Your task to perform on an android device: Add "dell alienware" to the cart on target.com Image 0: 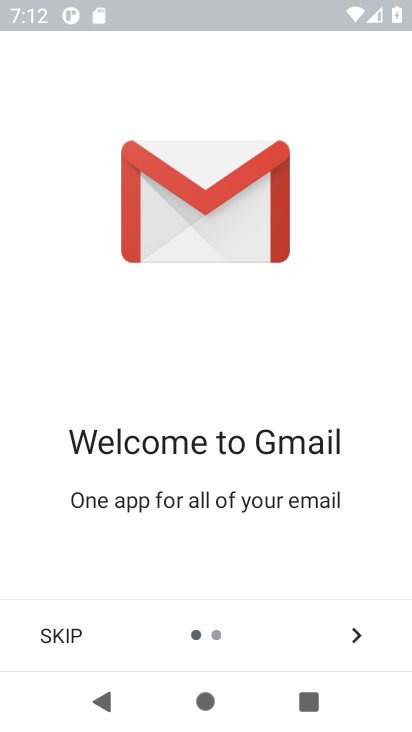
Step 0: press home button
Your task to perform on an android device: Add "dell alienware" to the cart on target.com Image 1: 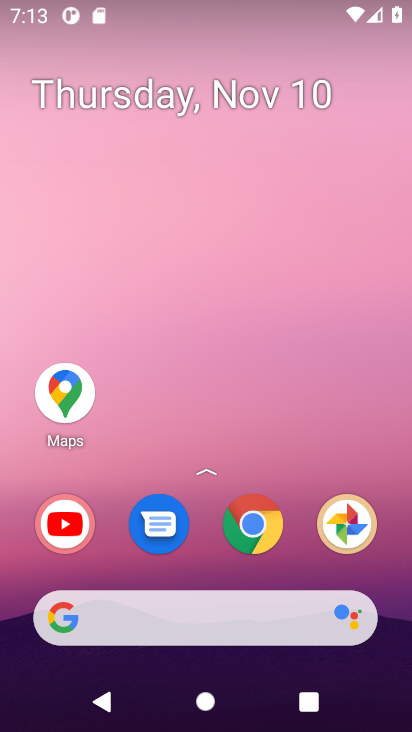
Step 1: click (248, 525)
Your task to perform on an android device: Add "dell alienware" to the cart on target.com Image 2: 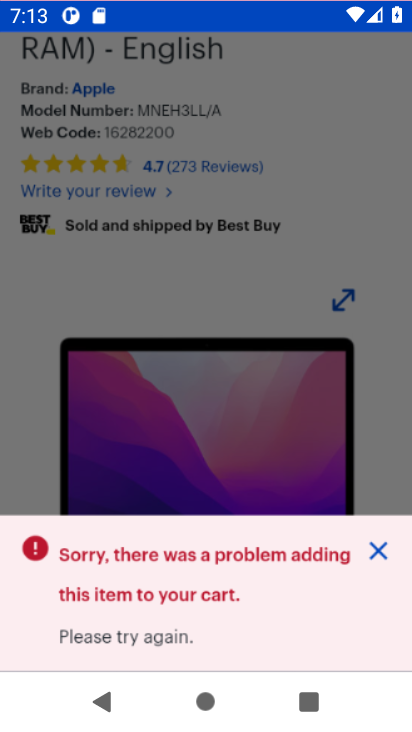
Step 2: click (253, 531)
Your task to perform on an android device: Add "dell alienware" to the cart on target.com Image 3: 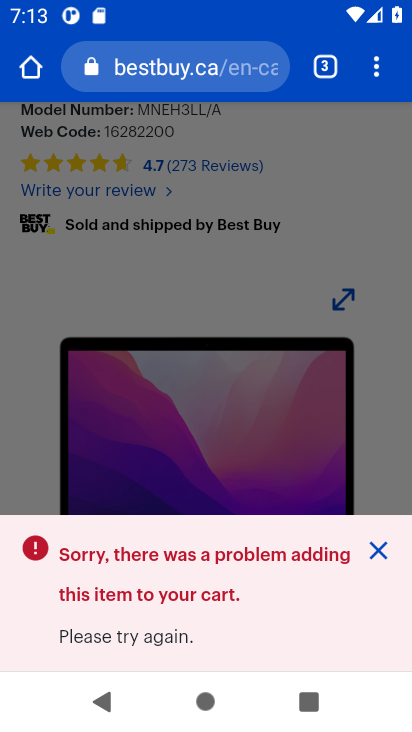
Step 3: click (335, 61)
Your task to perform on an android device: Add "dell alienware" to the cart on target.com Image 4: 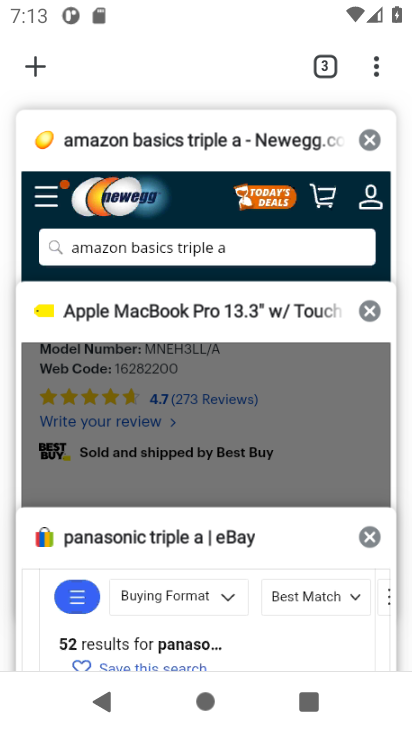
Step 4: click (365, 309)
Your task to perform on an android device: Add "dell alienware" to the cart on target.com Image 5: 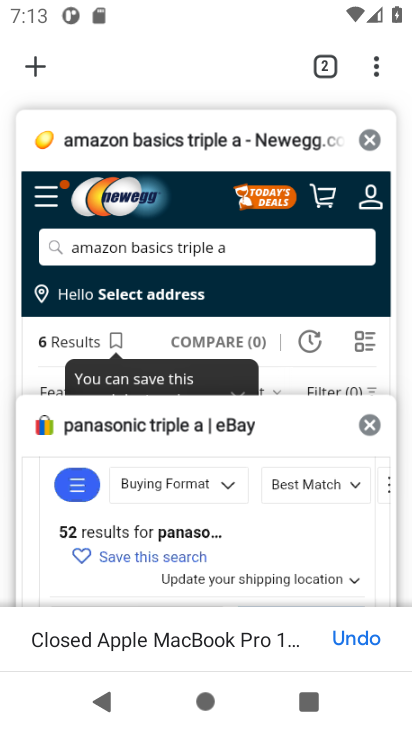
Step 5: click (373, 419)
Your task to perform on an android device: Add "dell alienware" to the cart on target.com Image 6: 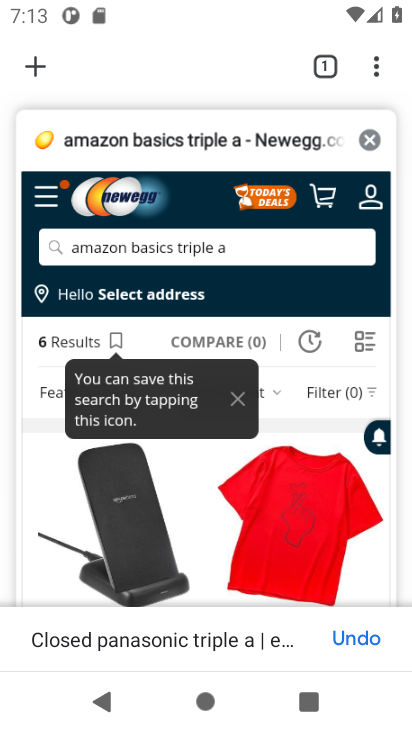
Step 6: click (368, 137)
Your task to perform on an android device: Add "dell alienware" to the cart on target.com Image 7: 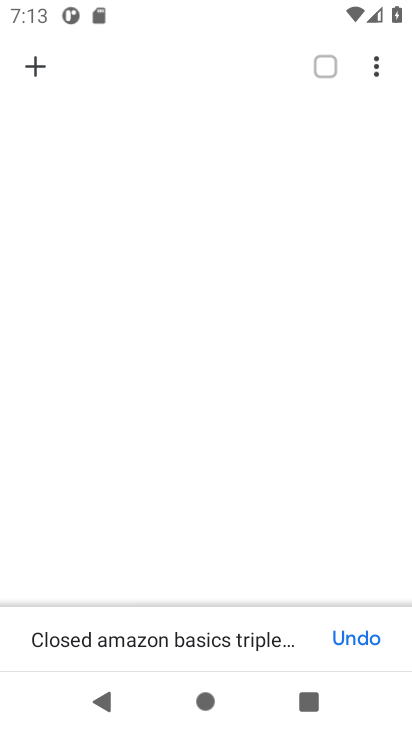
Step 7: click (32, 58)
Your task to perform on an android device: Add "dell alienware" to the cart on target.com Image 8: 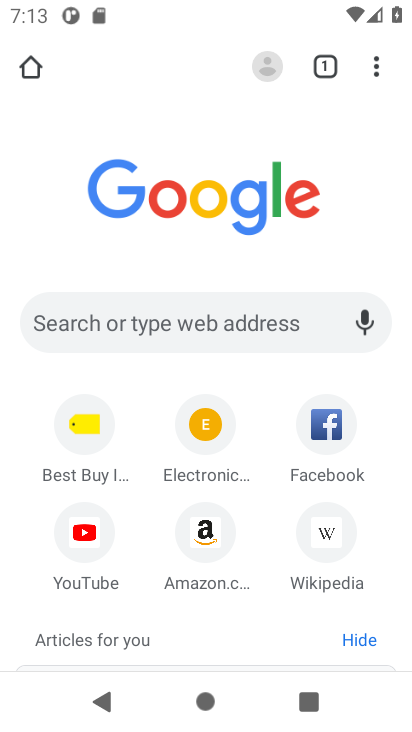
Step 8: click (127, 325)
Your task to perform on an android device: Add "dell alienware" to the cart on target.com Image 9: 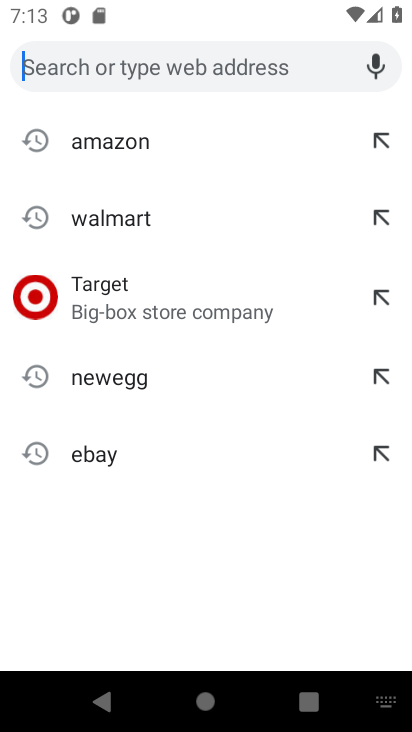
Step 9: click (96, 295)
Your task to perform on an android device: Add "dell alienware" to the cart on target.com Image 10: 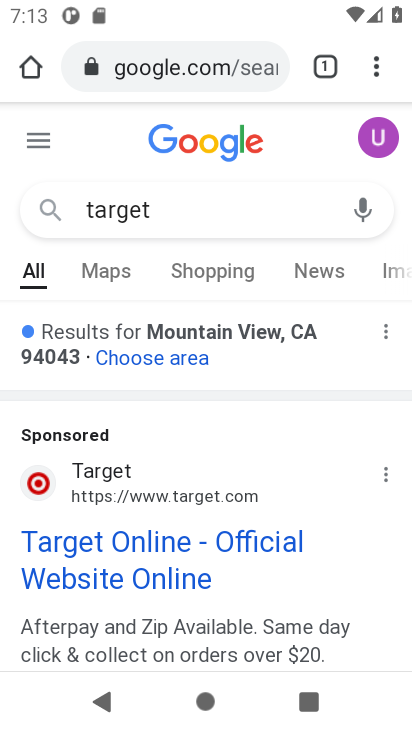
Step 10: drag from (172, 498) to (254, 199)
Your task to perform on an android device: Add "dell alienware" to the cart on target.com Image 11: 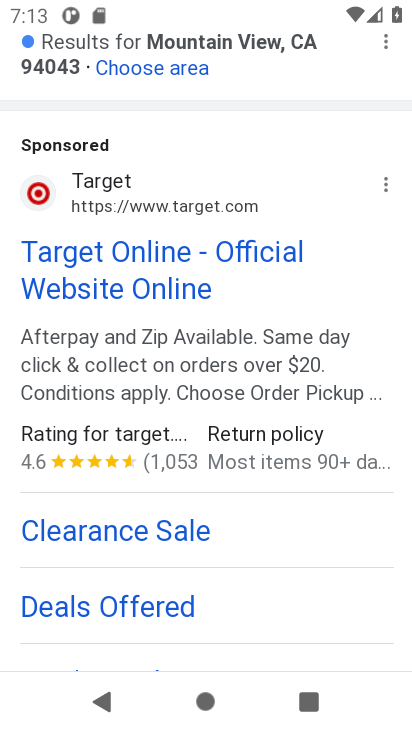
Step 11: drag from (271, 557) to (341, 170)
Your task to perform on an android device: Add "dell alienware" to the cart on target.com Image 12: 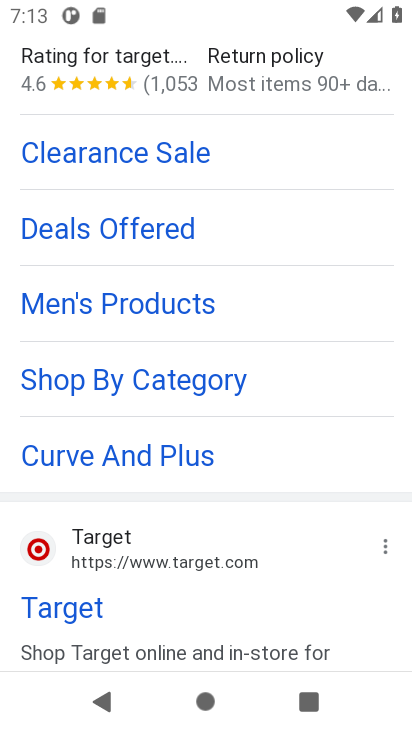
Step 12: drag from (287, 563) to (373, 206)
Your task to perform on an android device: Add "dell alienware" to the cart on target.com Image 13: 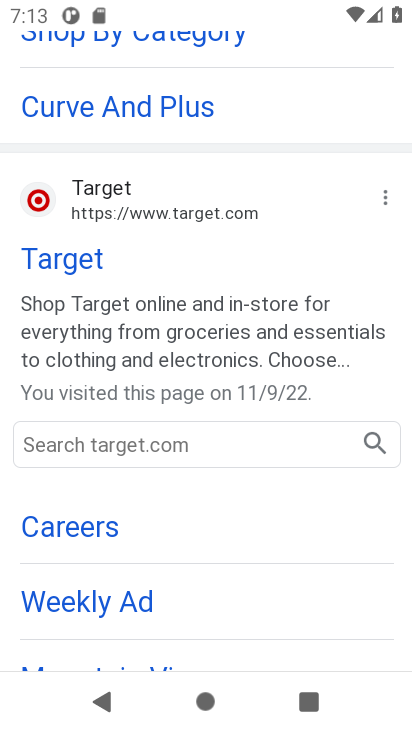
Step 13: click (128, 444)
Your task to perform on an android device: Add "dell alienware" to the cart on target.com Image 14: 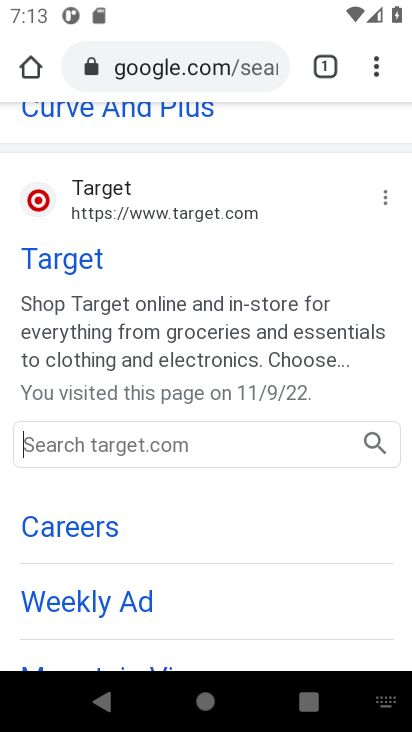
Step 14: type "dell alienware"
Your task to perform on an android device: Add "dell alienware" to the cart on target.com Image 15: 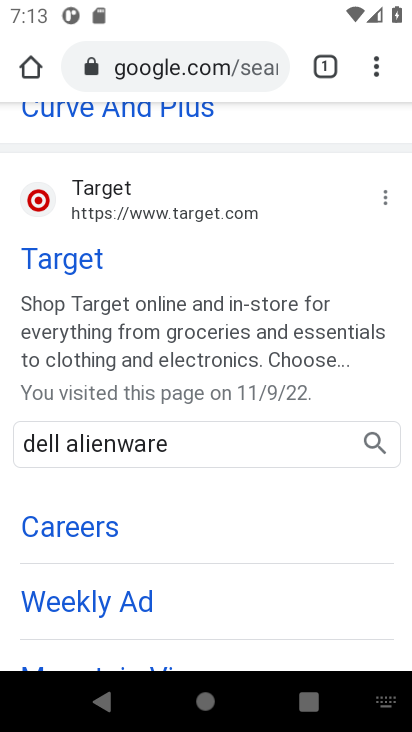
Step 15: click (369, 441)
Your task to perform on an android device: Add "dell alienware" to the cart on target.com Image 16: 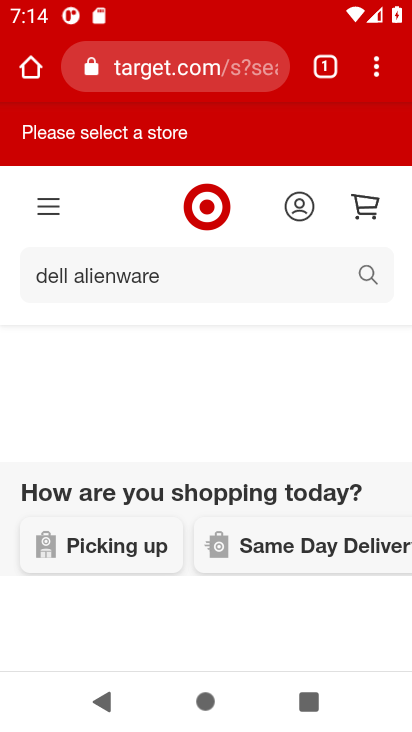
Step 16: task complete